Your task to perform on an android device: Do I have any events today? Image 0: 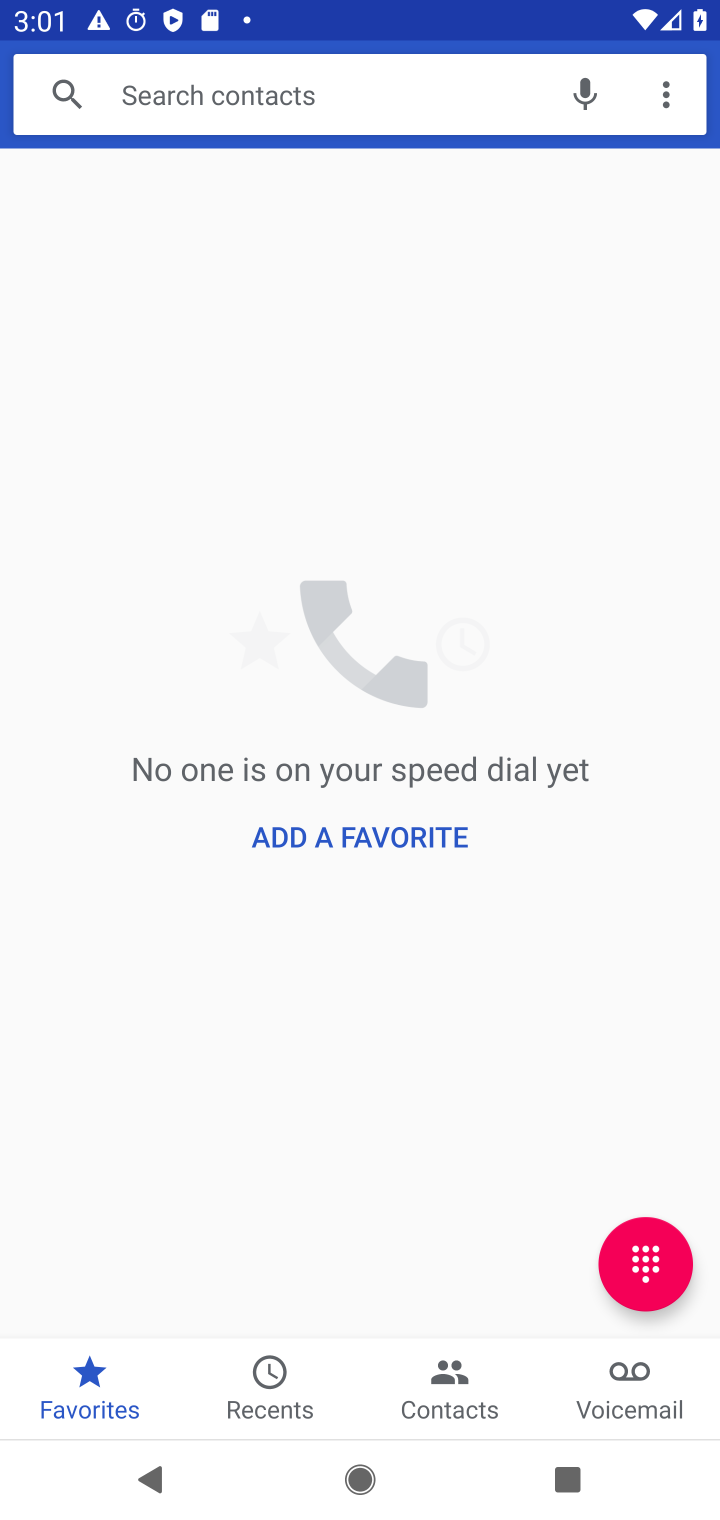
Step 0: press back button
Your task to perform on an android device: Do I have any events today? Image 1: 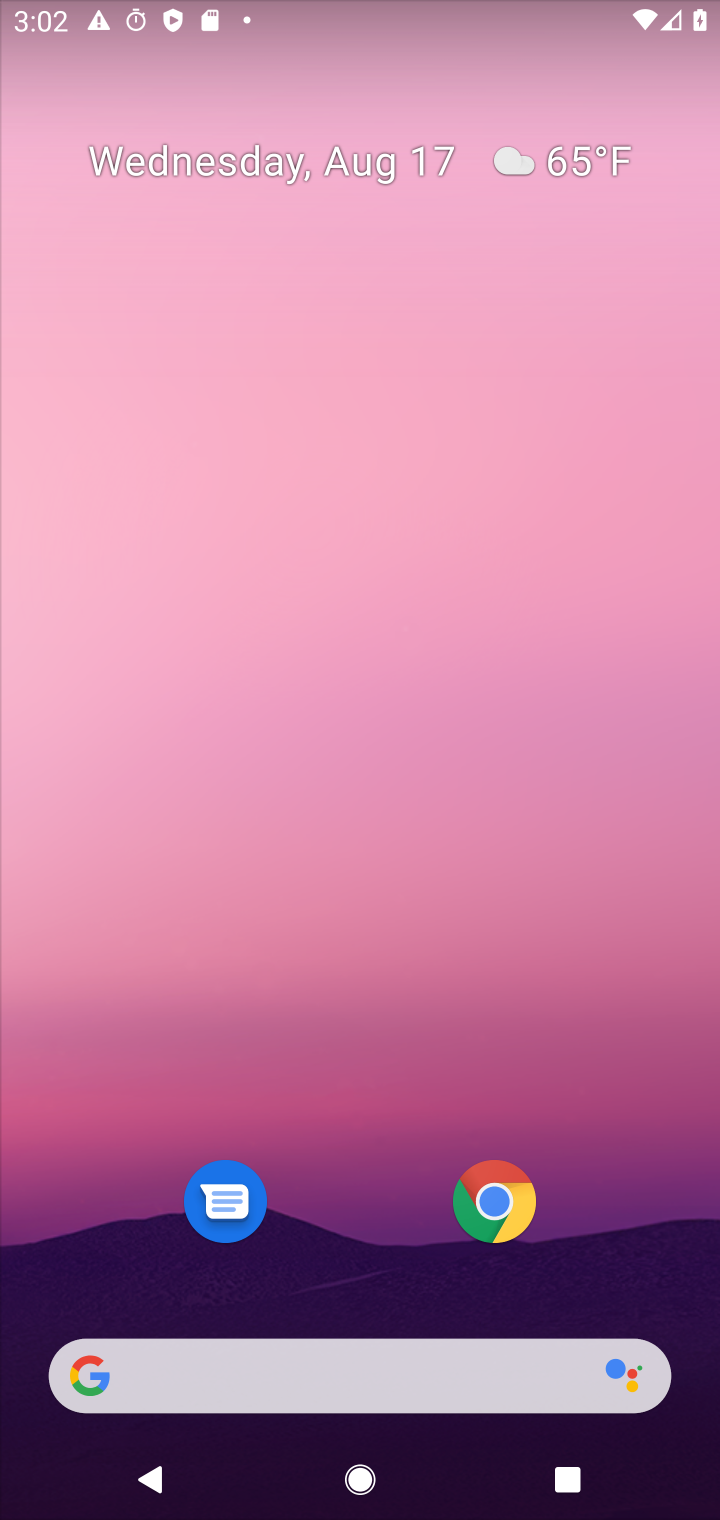
Step 1: drag from (396, 994) to (495, 243)
Your task to perform on an android device: Do I have any events today? Image 2: 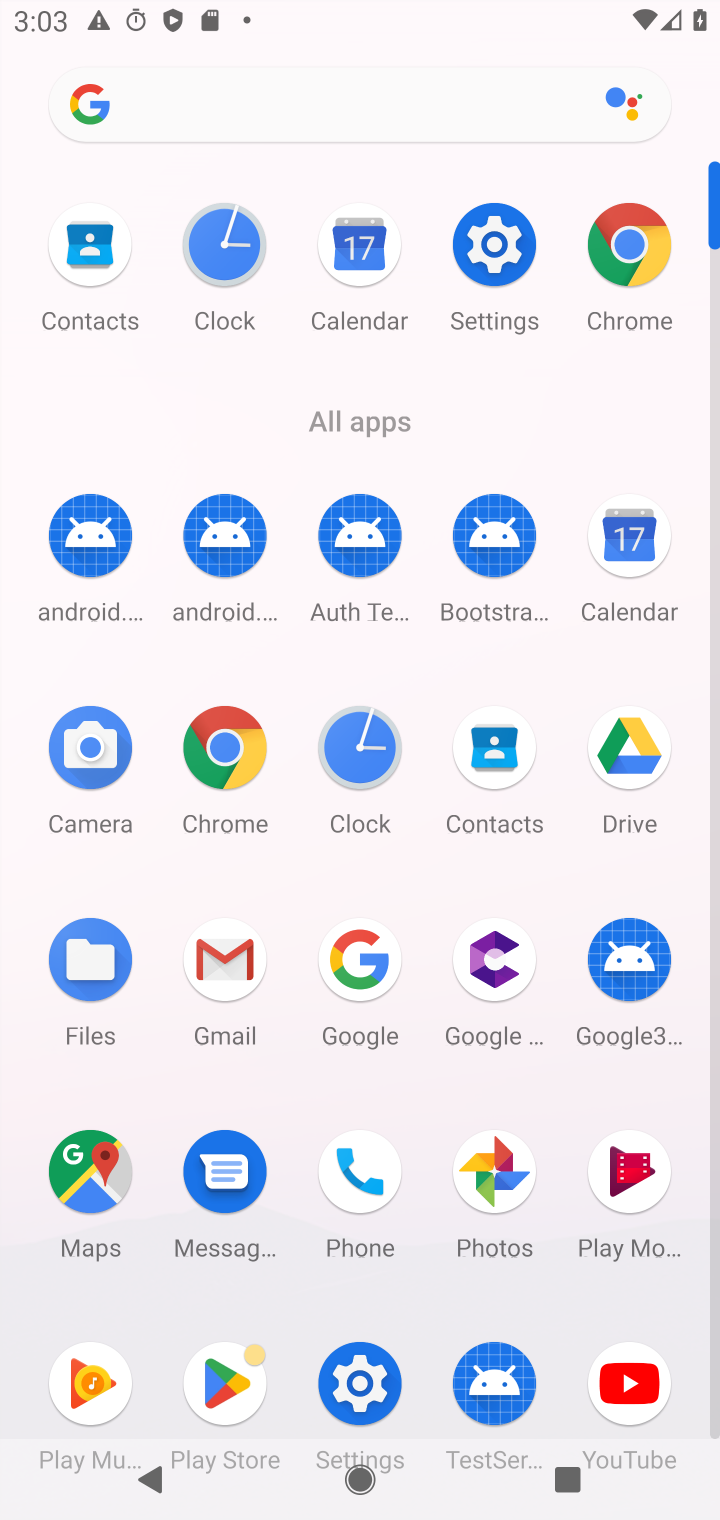
Step 2: click (626, 564)
Your task to perform on an android device: Do I have any events today? Image 3: 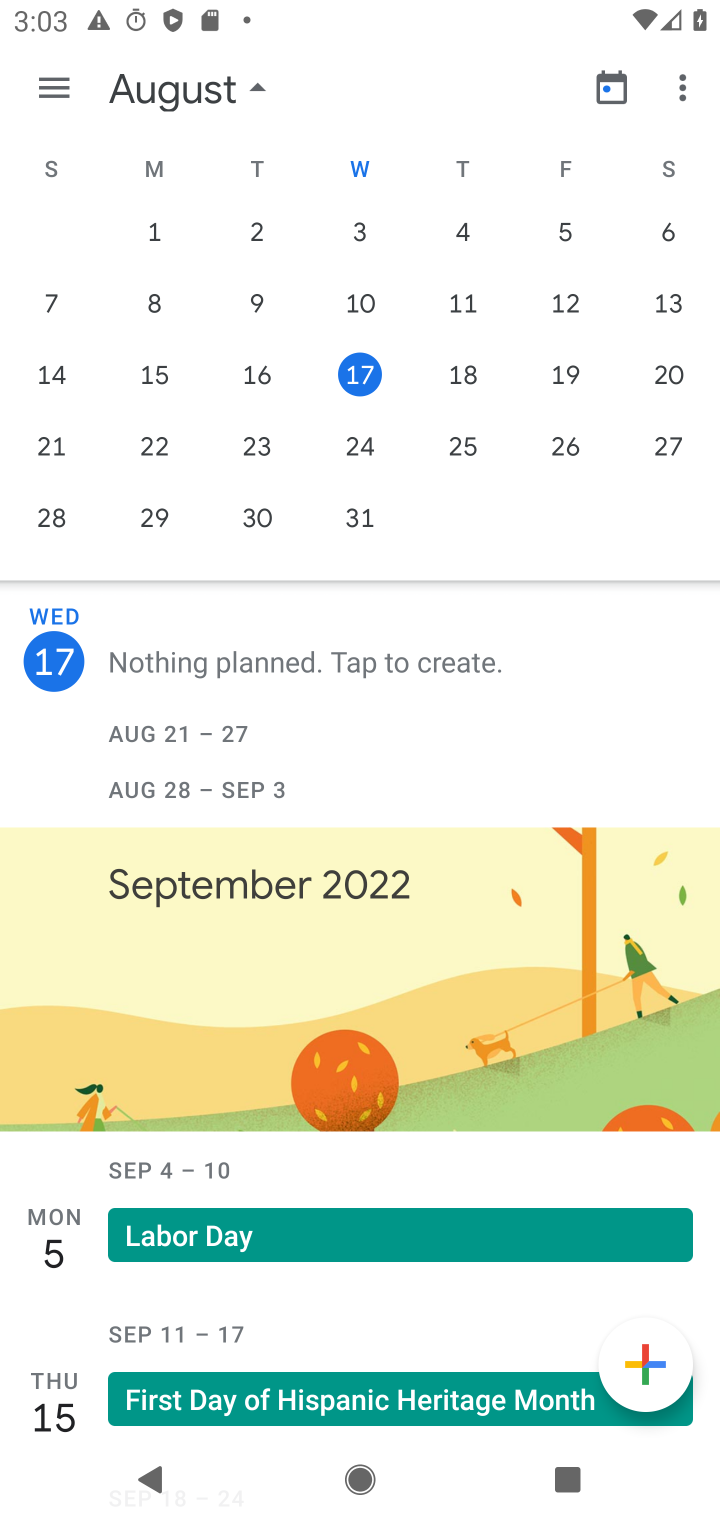
Step 3: task complete